Your task to perform on an android device: delete browsing data in the chrome app Image 0: 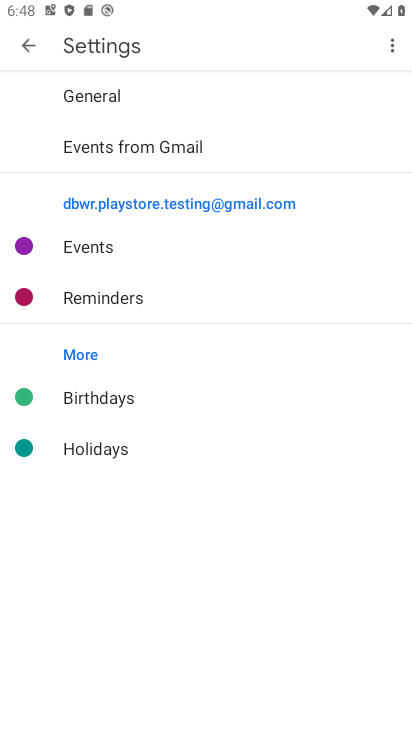
Step 0: press home button
Your task to perform on an android device: delete browsing data in the chrome app Image 1: 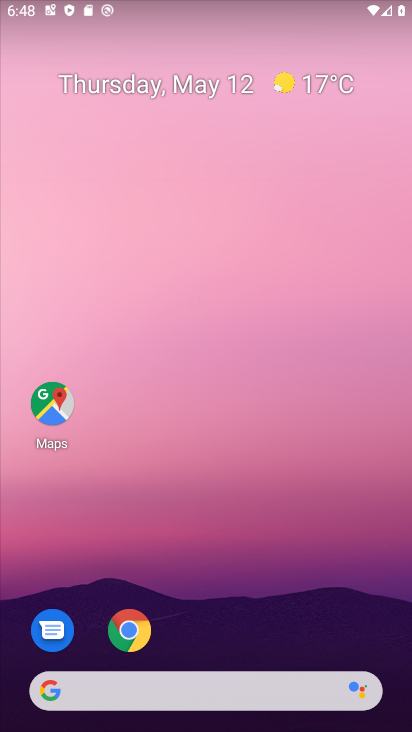
Step 1: click (134, 623)
Your task to perform on an android device: delete browsing data in the chrome app Image 2: 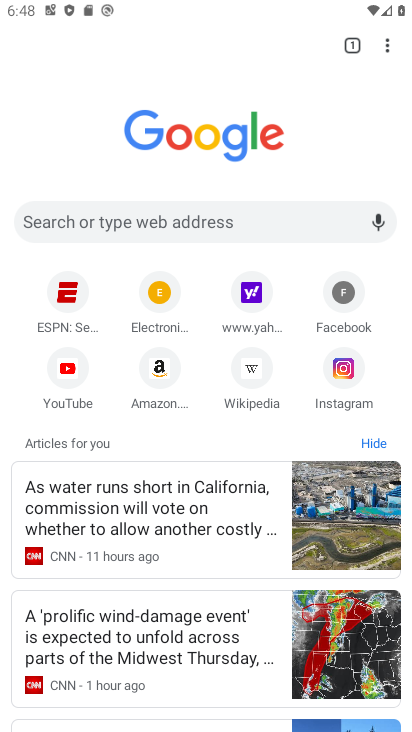
Step 2: click (385, 46)
Your task to perform on an android device: delete browsing data in the chrome app Image 3: 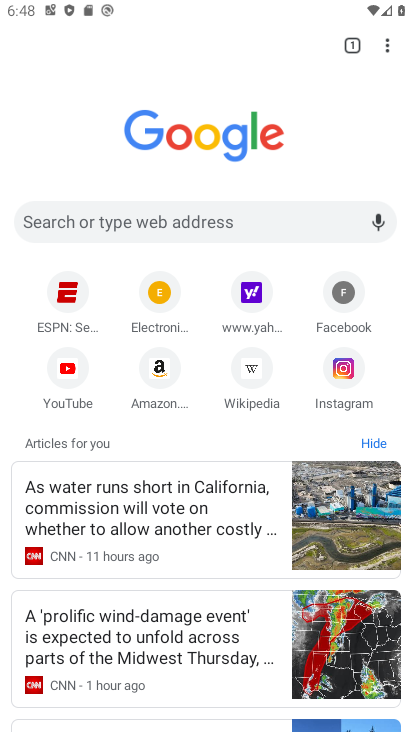
Step 3: click (388, 49)
Your task to perform on an android device: delete browsing data in the chrome app Image 4: 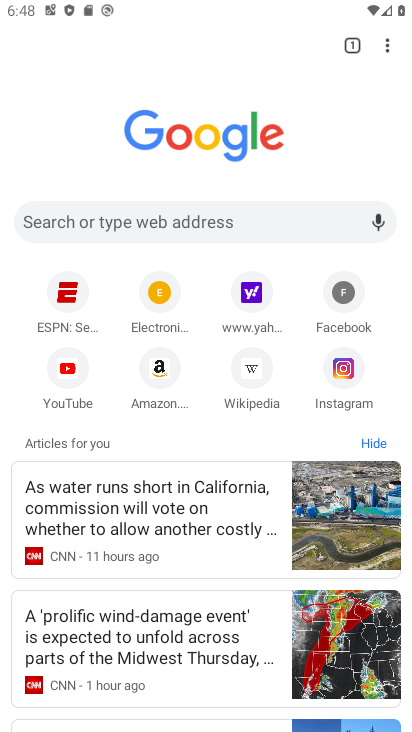
Step 4: click (388, 49)
Your task to perform on an android device: delete browsing data in the chrome app Image 5: 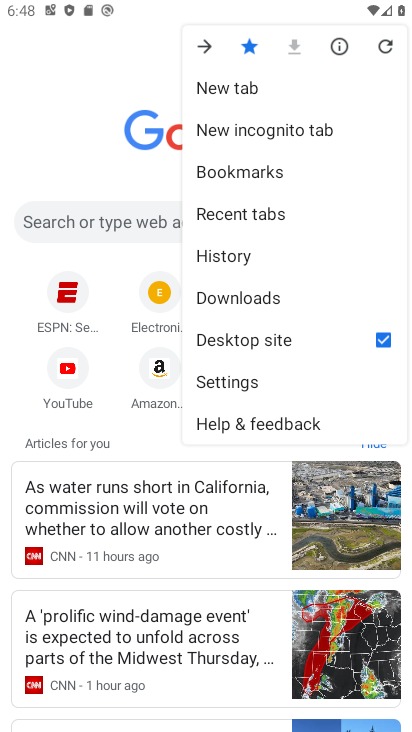
Step 5: click (249, 401)
Your task to perform on an android device: delete browsing data in the chrome app Image 6: 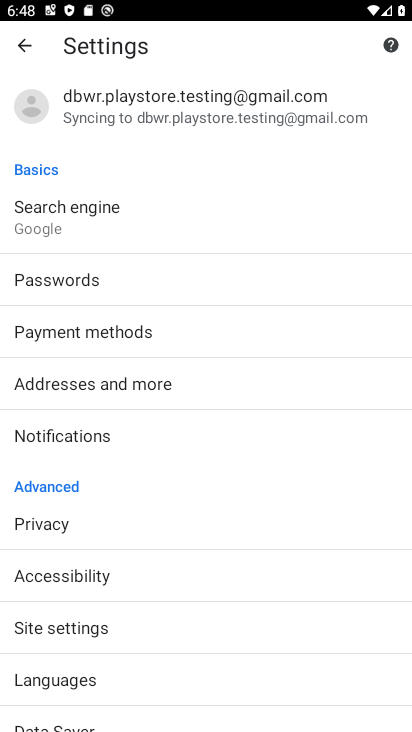
Step 6: press back button
Your task to perform on an android device: delete browsing data in the chrome app Image 7: 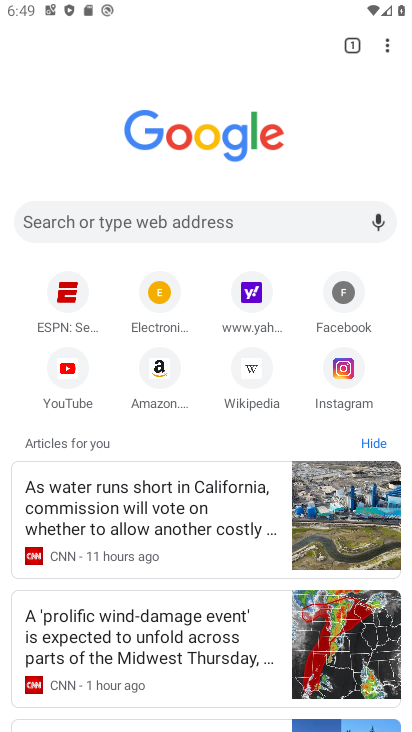
Step 7: click (389, 42)
Your task to perform on an android device: delete browsing data in the chrome app Image 8: 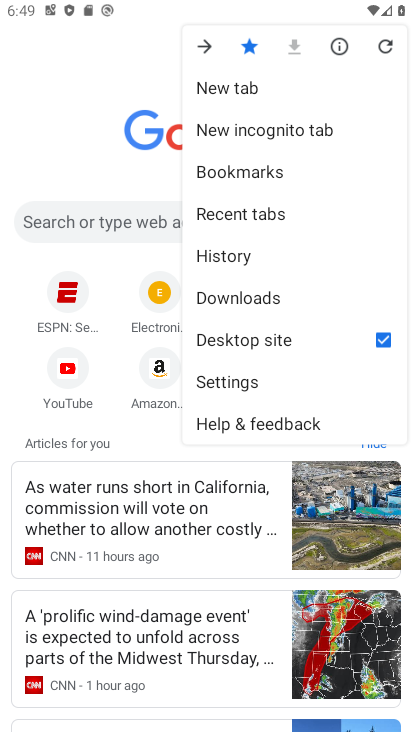
Step 8: click (225, 260)
Your task to perform on an android device: delete browsing data in the chrome app Image 9: 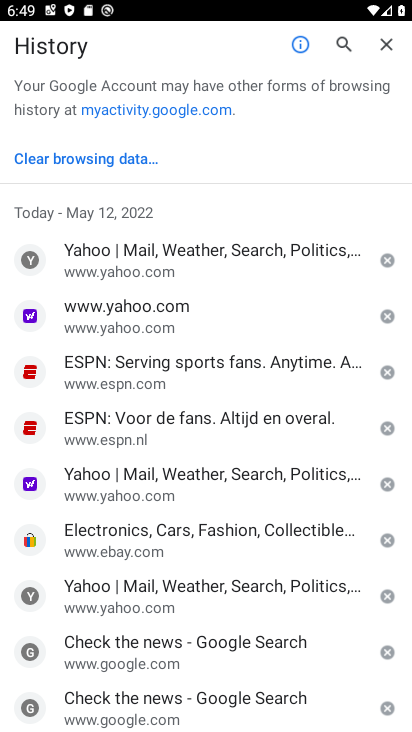
Step 9: click (53, 169)
Your task to perform on an android device: delete browsing data in the chrome app Image 10: 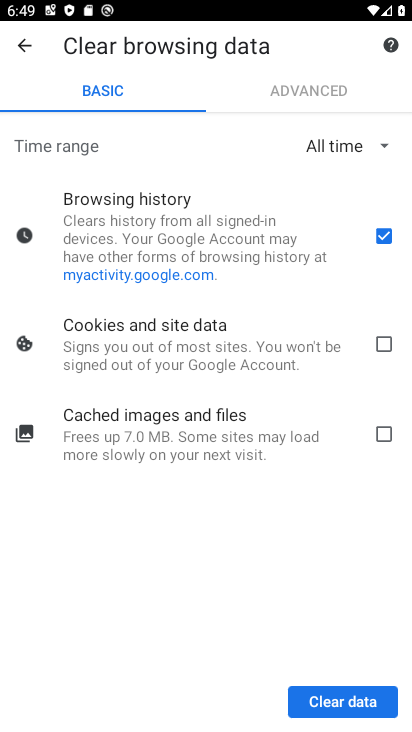
Step 10: click (348, 692)
Your task to perform on an android device: delete browsing data in the chrome app Image 11: 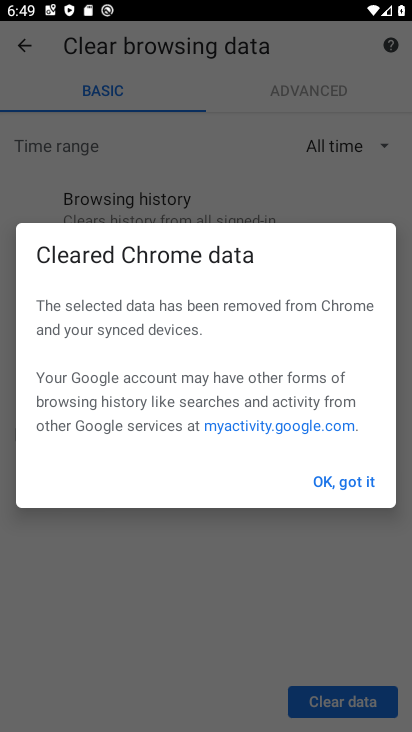
Step 11: click (334, 480)
Your task to perform on an android device: delete browsing data in the chrome app Image 12: 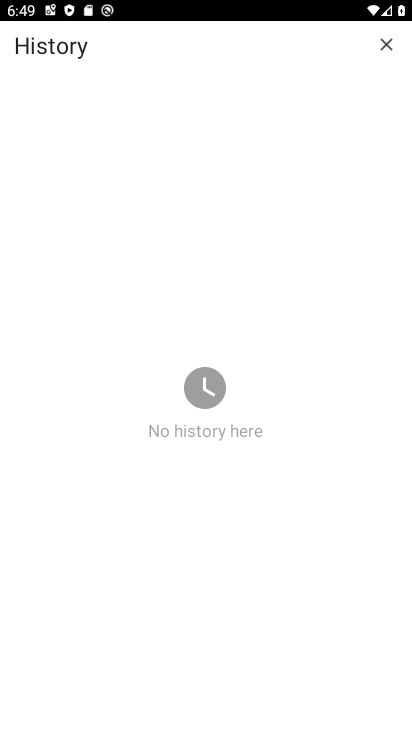
Step 12: task complete